Your task to perform on an android device: visit the assistant section in the google photos Image 0: 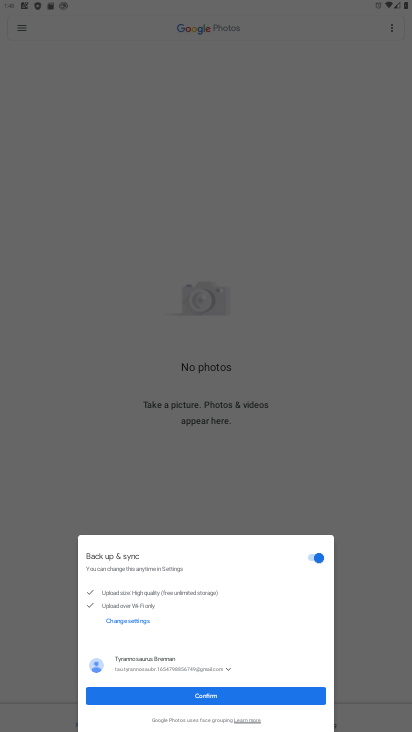
Step 0: click (182, 692)
Your task to perform on an android device: visit the assistant section in the google photos Image 1: 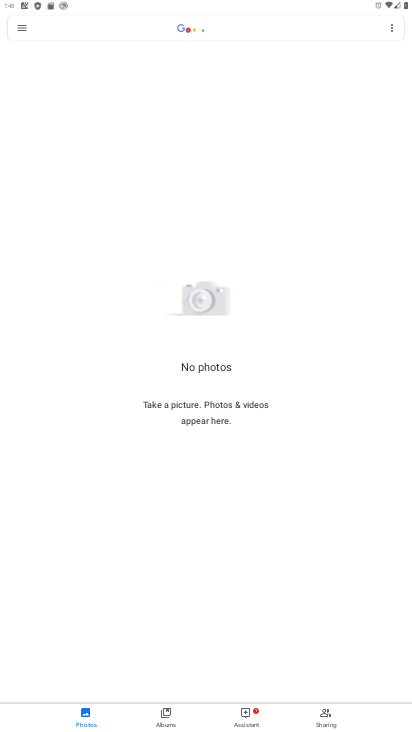
Step 1: click (243, 715)
Your task to perform on an android device: visit the assistant section in the google photos Image 2: 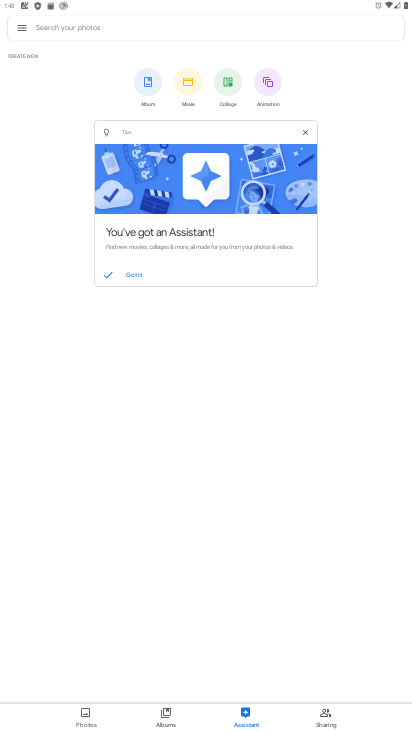
Step 2: click (260, 80)
Your task to perform on an android device: visit the assistant section in the google photos Image 3: 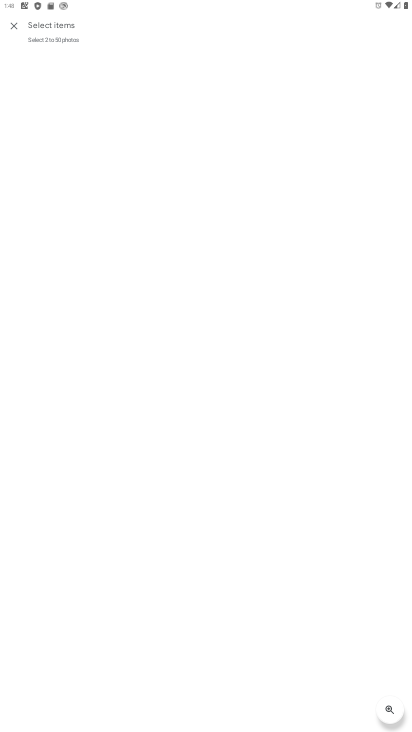
Step 3: click (10, 19)
Your task to perform on an android device: visit the assistant section in the google photos Image 4: 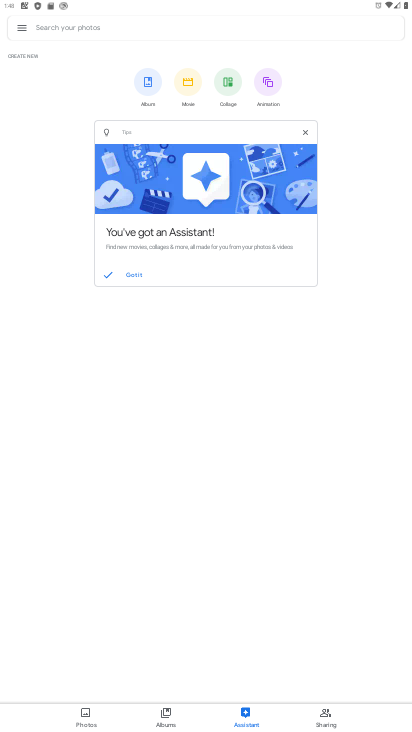
Step 4: task complete